Your task to perform on an android device: Open Chrome and go to settings Image 0: 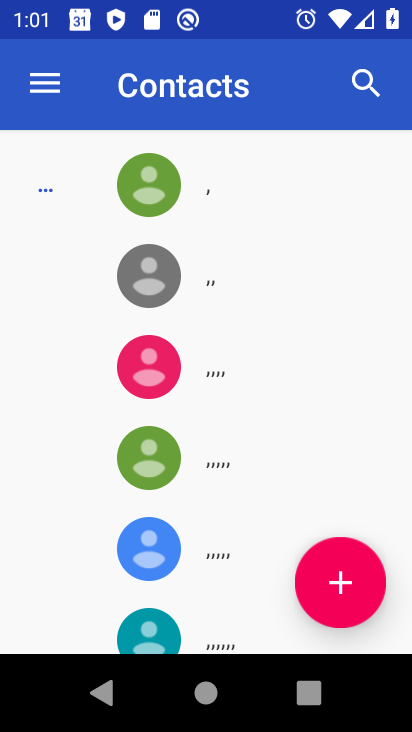
Step 0: press back button
Your task to perform on an android device: Open Chrome and go to settings Image 1: 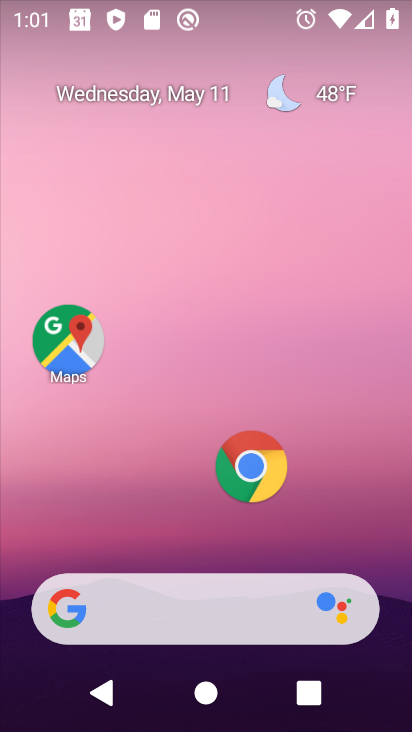
Step 1: click (265, 477)
Your task to perform on an android device: Open Chrome and go to settings Image 2: 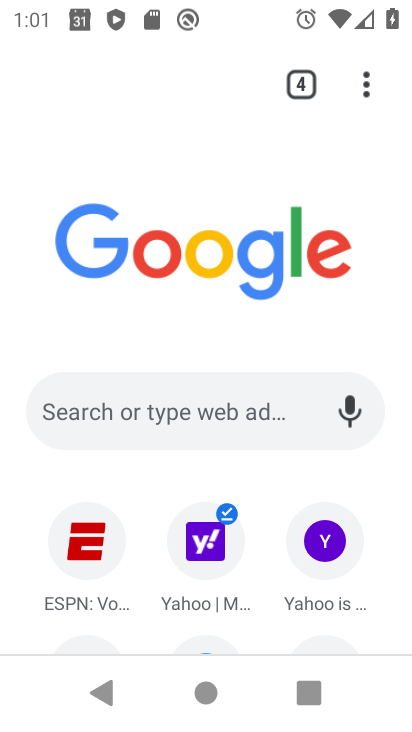
Step 2: task complete